Your task to perform on an android device: allow cookies in the chrome app Image 0: 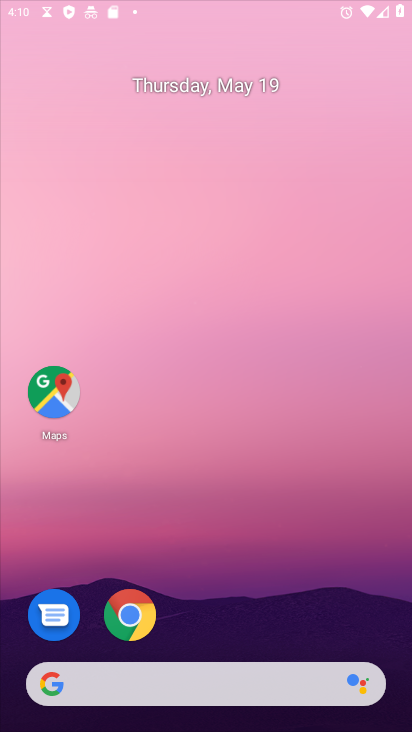
Step 0: drag from (266, 500) to (235, 3)
Your task to perform on an android device: allow cookies in the chrome app Image 1: 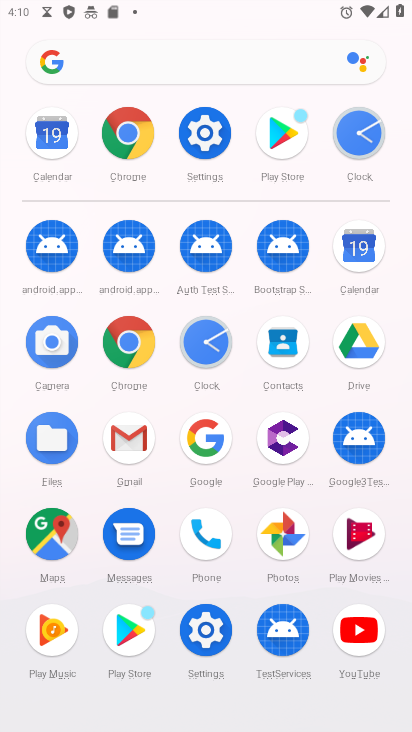
Step 1: click (133, 141)
Your task to perform on an android device: allow cookies in the chrome app Image 2: 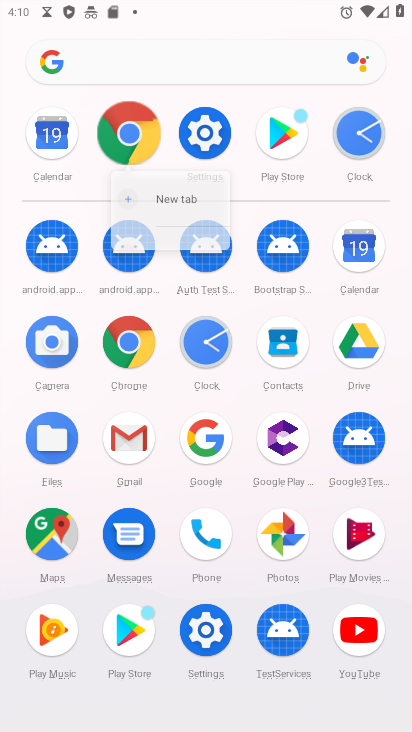
Step 2: click (133, 141)
Your task to perform on an android device: allow cookies in the chrome app Image 3: 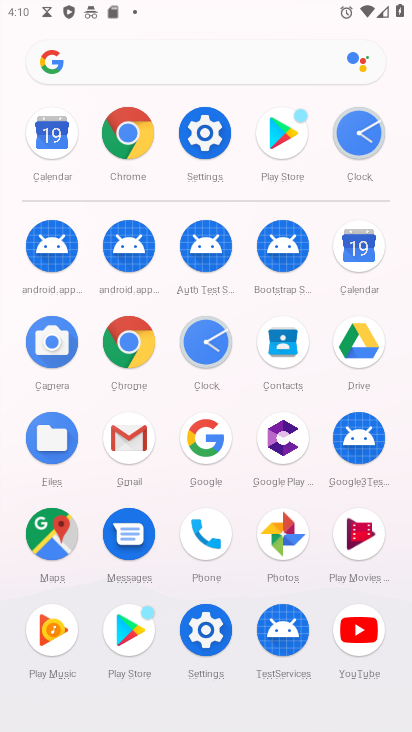
Step 3: click (135, 140)
Your task to perform on an android device: allow cookies in the chrome app Image 4: 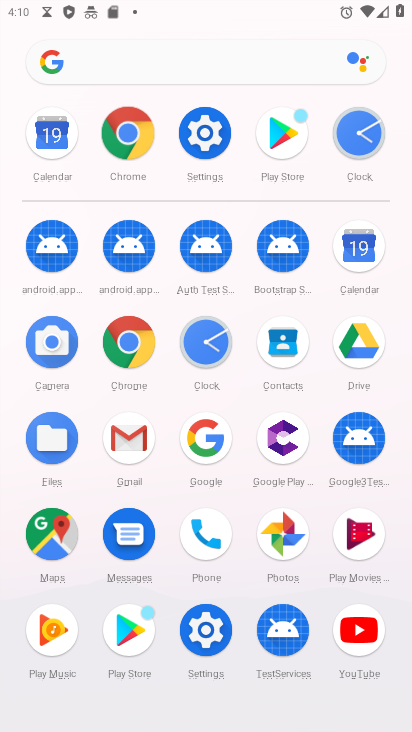
Step 4: click (136, 139)
Your task to perform on an android device: allow cookies in the chrome app Image 5: 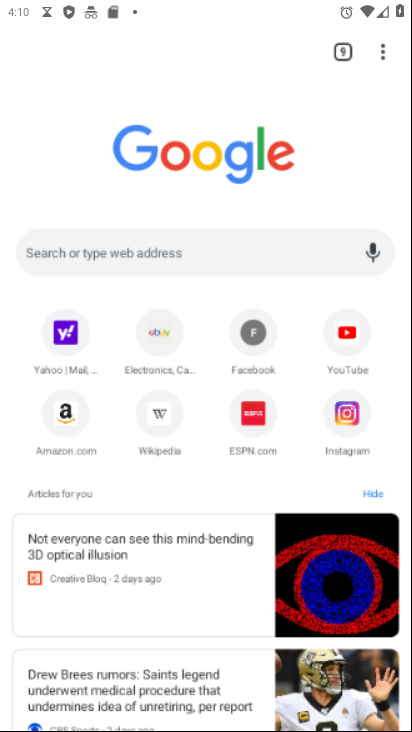
Step 5: click (136, 139)
Your task to perform on an android device: allow cookies in the chrome app Image 6: 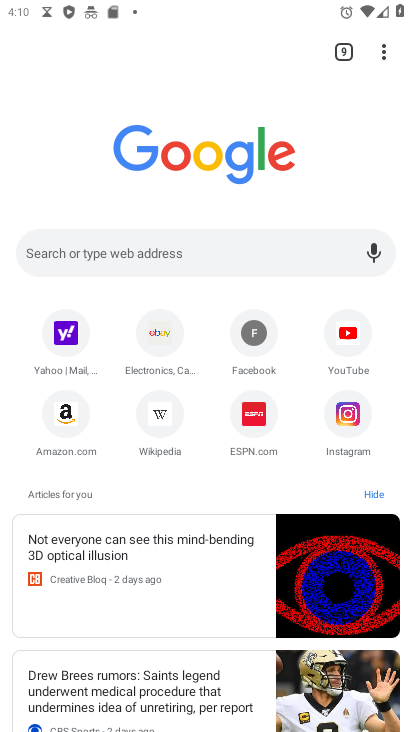
Step 6: click (387, 44)
Your task to perform on an android device: allow cookies in the chrome app Image 7: 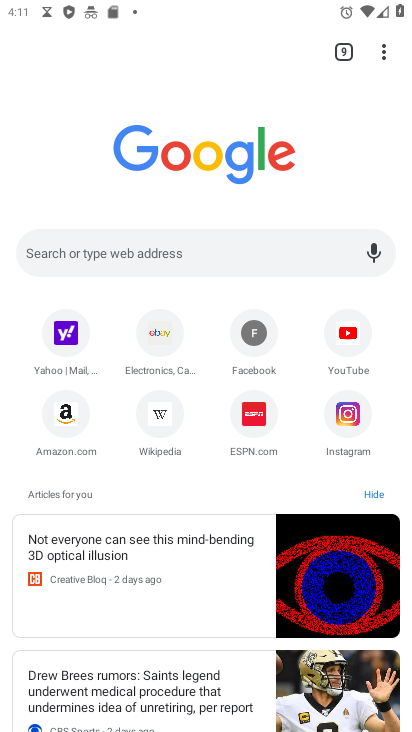
Step 7: drag from (383, 56) to (210, 432)
Your task to perform on an android device: allow cookies in the chrome app Image 8: 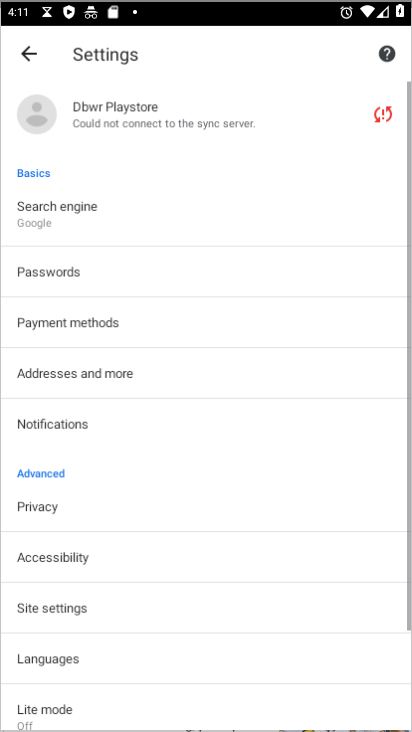
Step 8: click (184, 422)
Your task to perform on an android device: allow cookies in the chrome app Image 9: 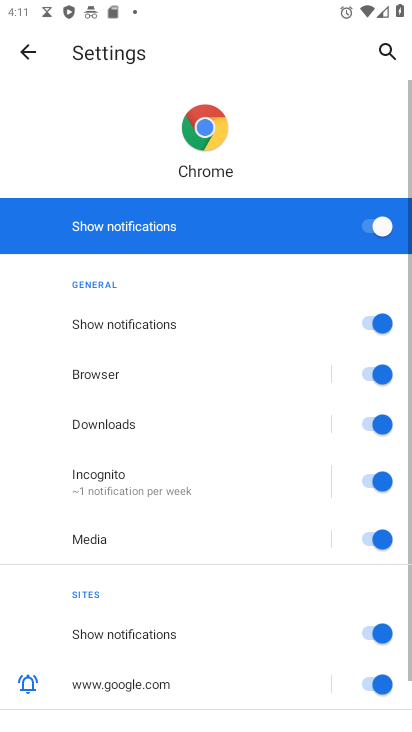
Step 9: click (27, 61)
Your task to perform on an android device: allow cookies in the chrome app Image 10: 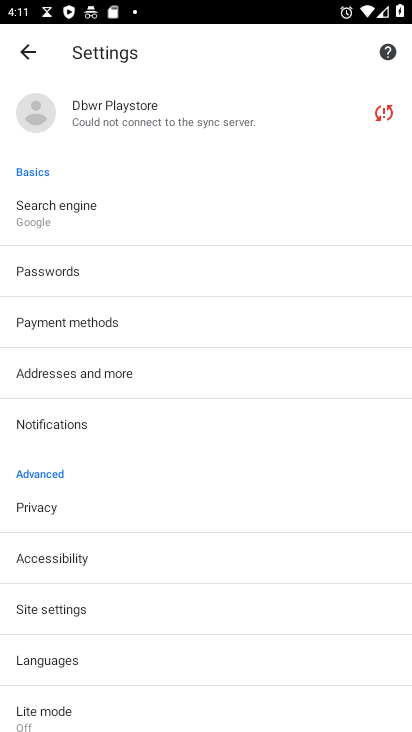
Step 10: click (49, 606)
Your task to perform on an android device: allow cookies in the chrome app Image 11: 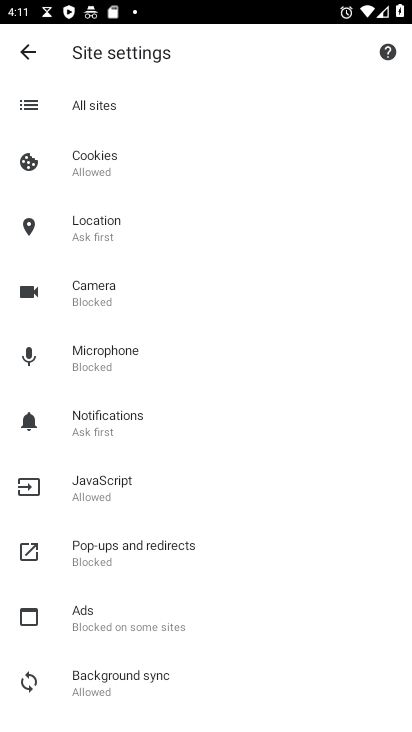
Step 11: click (90, 160)
Your task to perform on an android device: allow cookies in the chrome app Image 12: 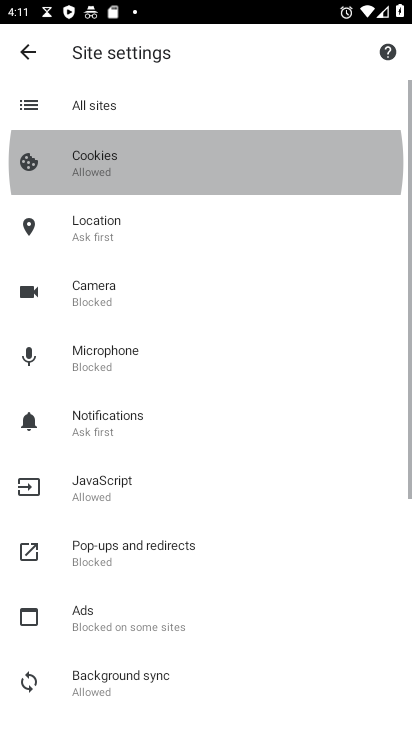
Step 12: click (91, 160)
Your task to perform on an android device: allow cookies in the chrome app Image 13: 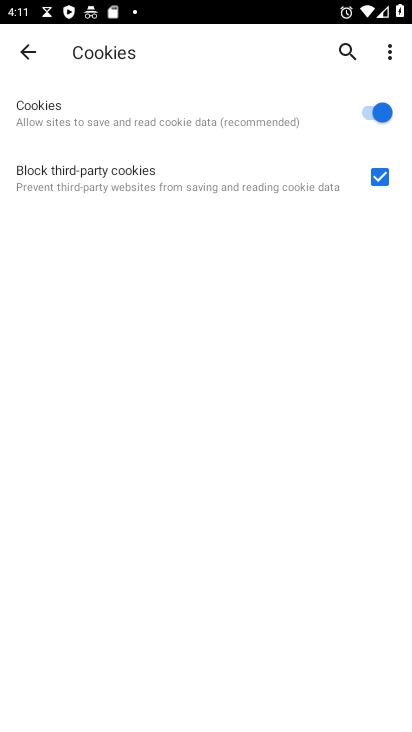
Step 13: task complete